Your task to perform on an android device: Empty the shopping cart on target.com. Image 0: 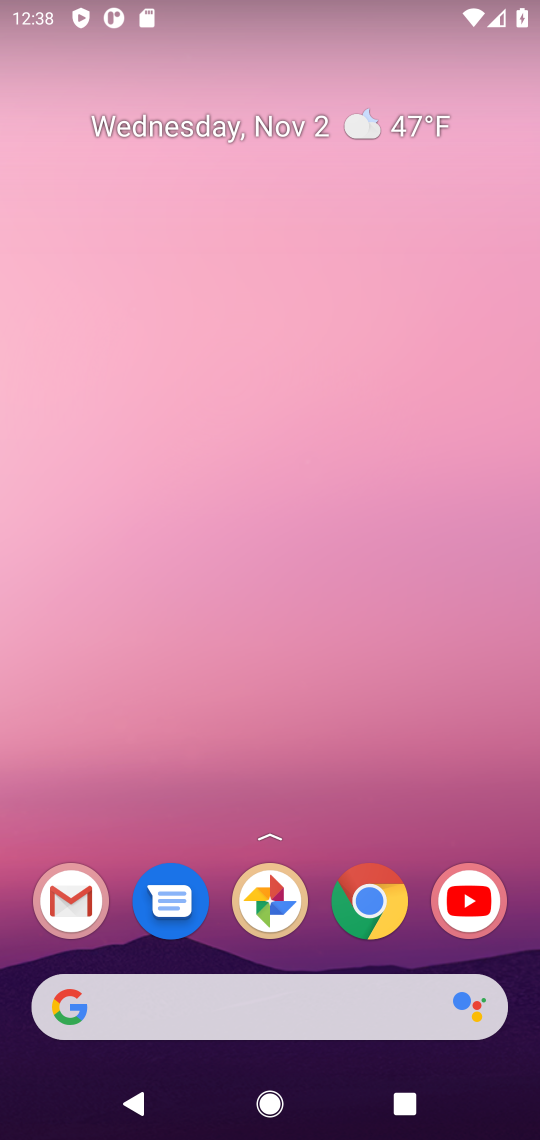
Step 0: drag from (320, 938) to (320, 10)
Your task to perform on an android device: Empty the shopping cart on target.com. Image 1: 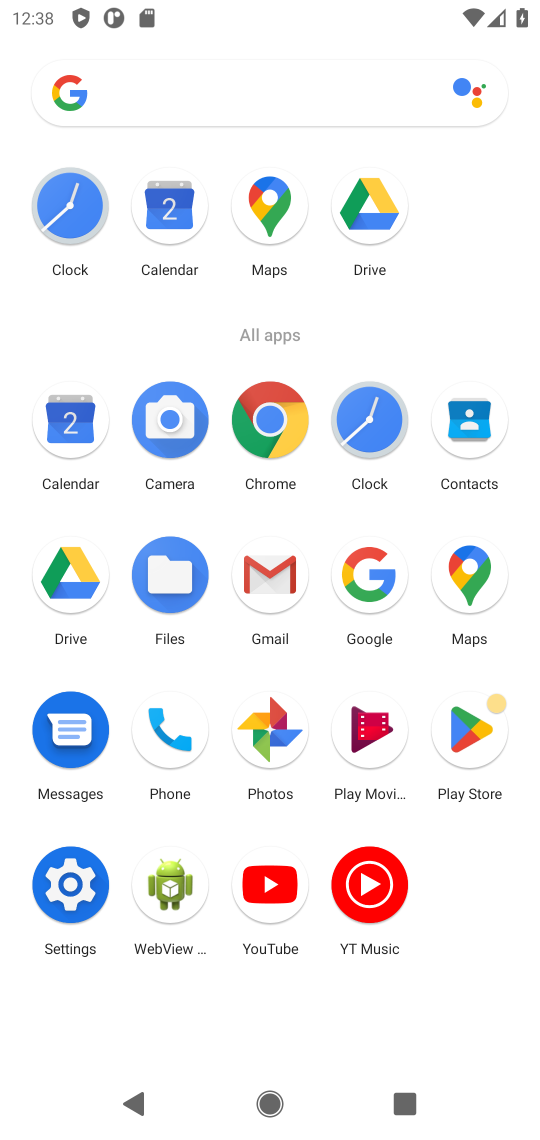
Step 1: click (270, 418)
Your task to perform on an android device: Empty the shopping cart on target.com. Image 2: 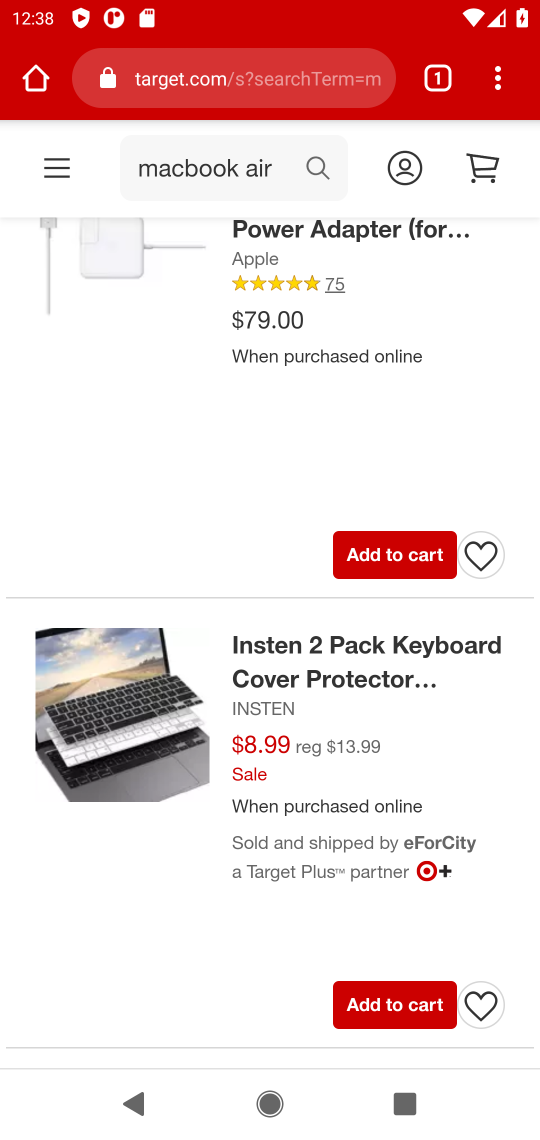
Step 2: click (267, 70)
Your task to perform on an android device: Empty the shopping cart on target.com. Image 3: 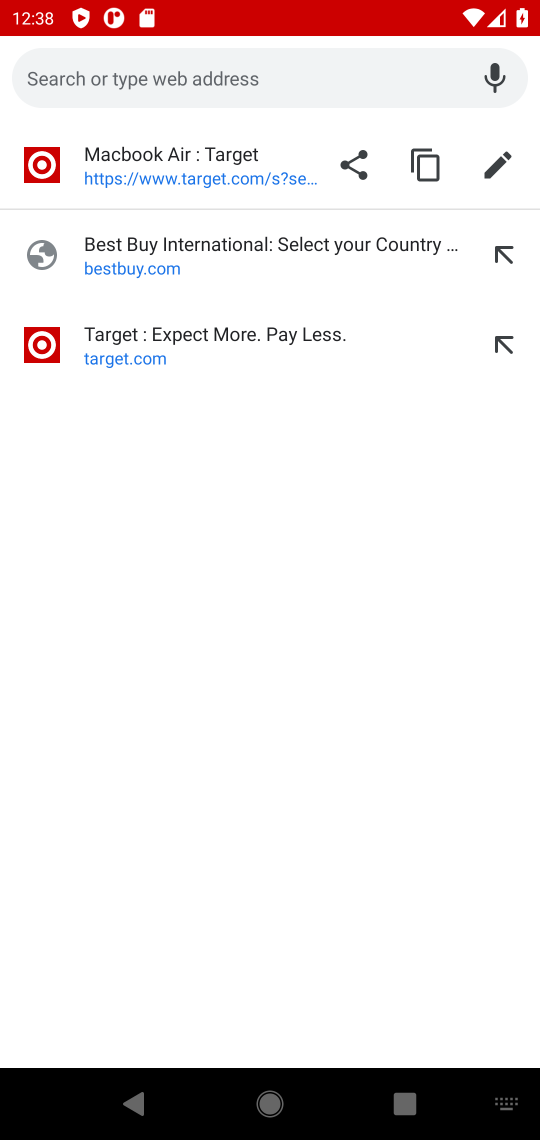
Step 3: type "target.com"
Your task to perform on an android device: Empty the shopping cart on target.com. Image 4: 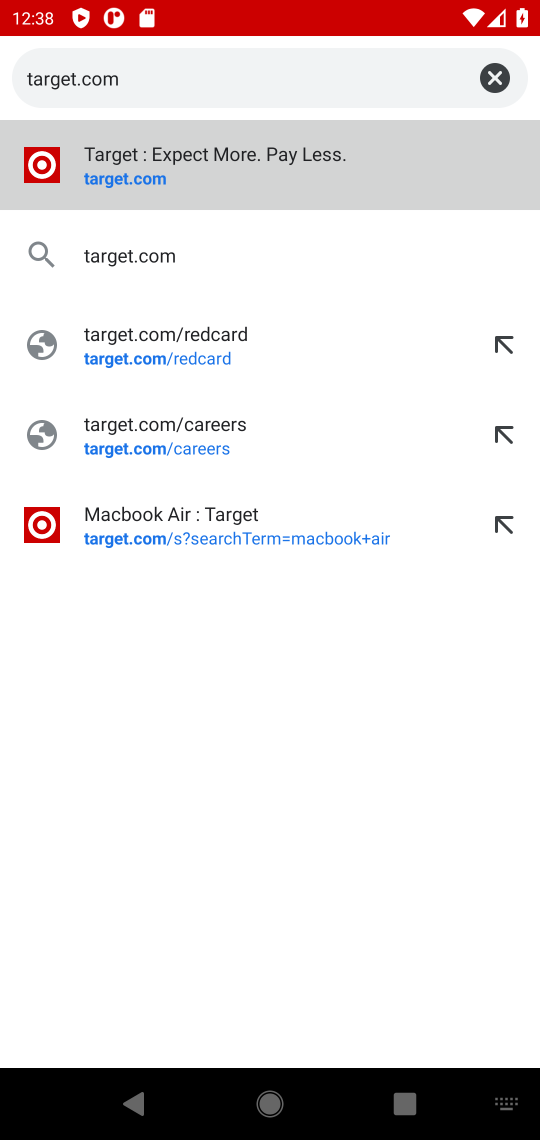
Step 4: press enter
Your task to perform on an android device: Empty the shopping cart on target.com. Image 5: 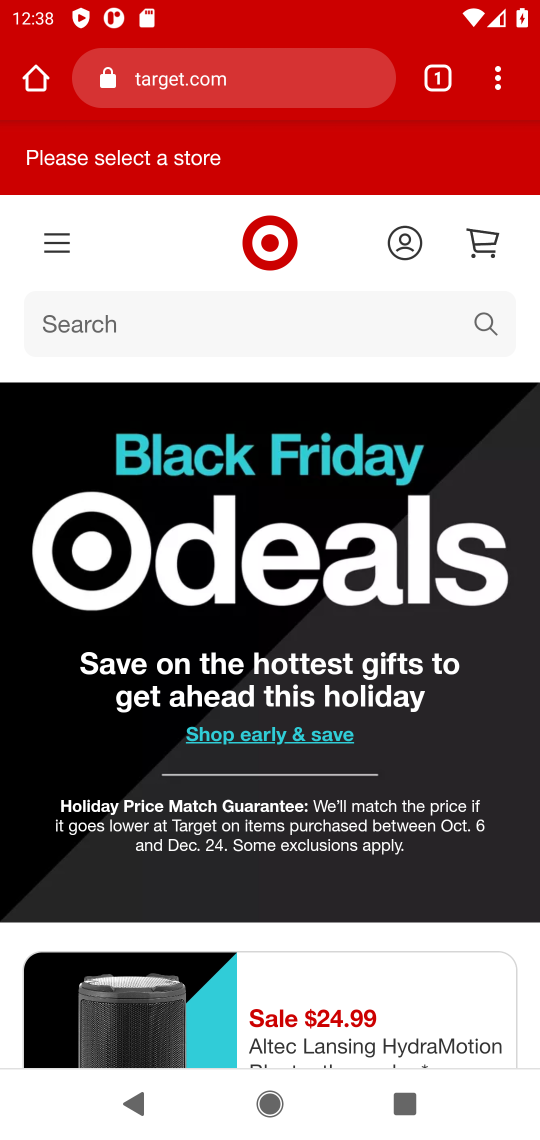
Step 5: click (475, 246)
Your task to perform on an android device: Empty the shopping cart on target.com. Image 6: 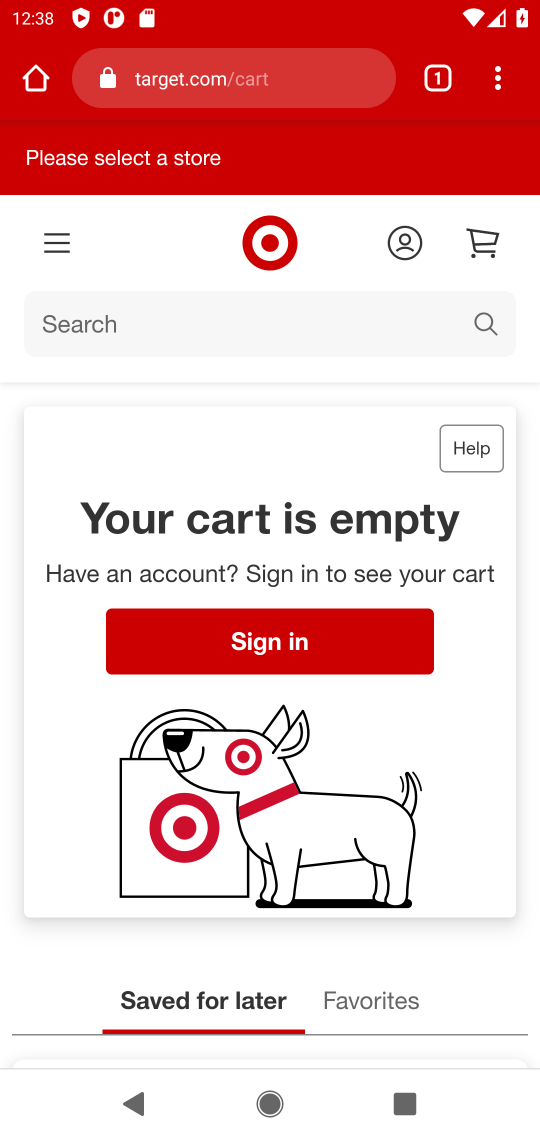
Step 6: task complete